Your task to perform on an android device: turn on translation in the chrome app Image 0: 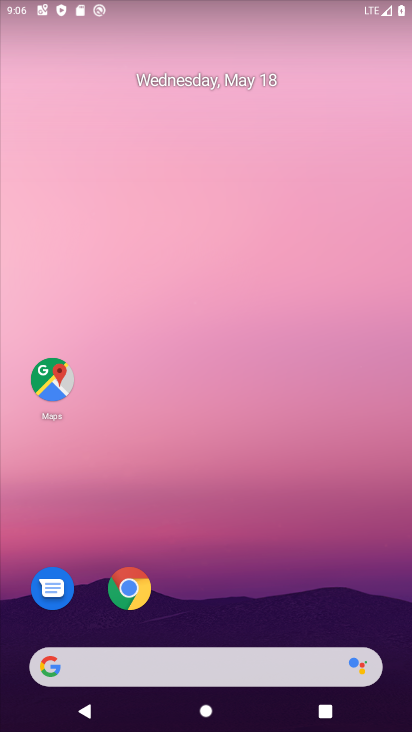
Step 0: click (137, 589)
Your task to perform on an android device: turn on translation in the chrome app Image 1: 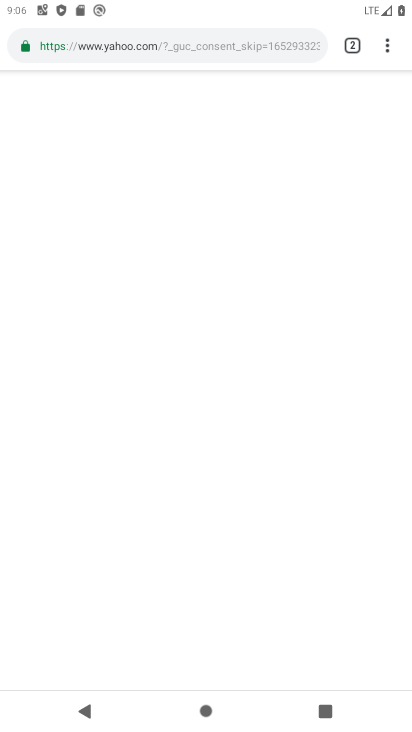
Step 1: click (386, 44)
Your task to perform on an android device: turn on translation in the chrome app Image 2: 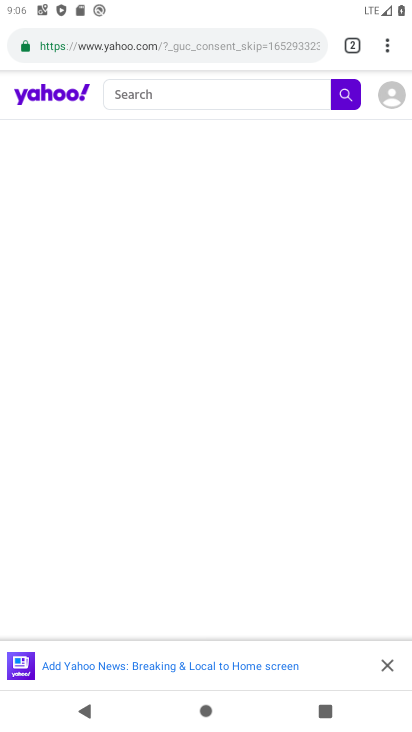
Step 2: drag from (382, 37) to (229, 513)
Your task to perform on an android device: turn on translation in the chrome app Image 3: 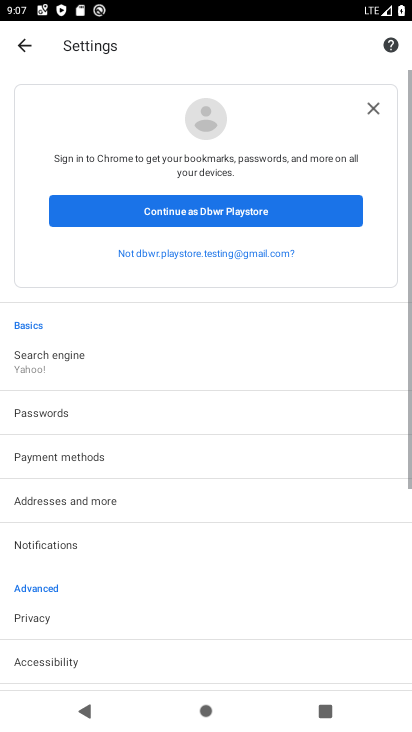
Step 3: drag from (200, 579) to (137, 76)
Your task to perform on an android device: turn on translation in the chrome app Image 4: 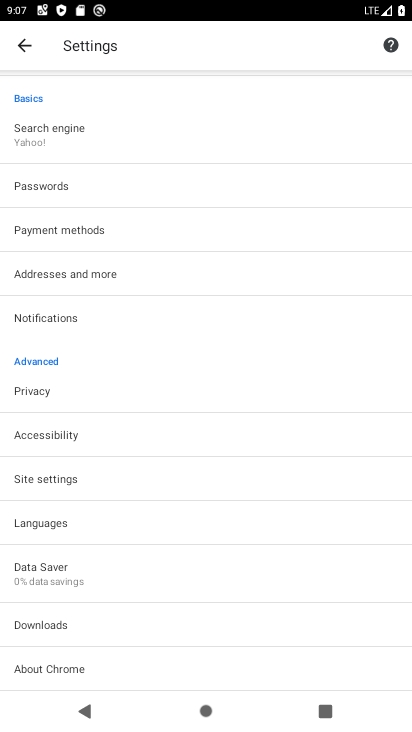
Step 4: click (43, 525)
Your task to perform on an android device: turn on translation in the chrome app Image 5: 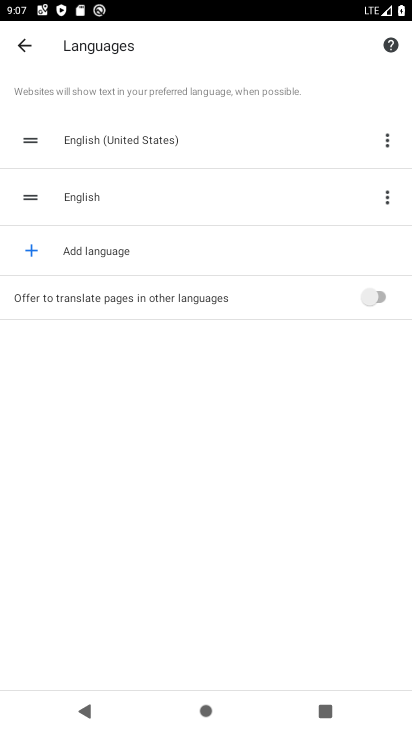
Step 5: click (372, 297)
Your task to perform on an android device: turn on translation in the chrome app Image 6: 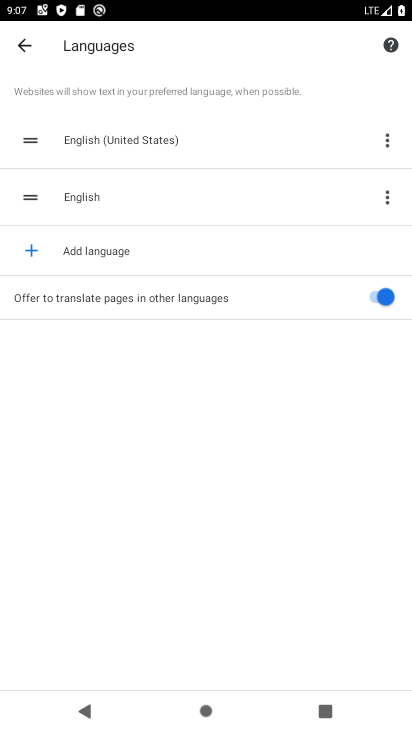
Step 6: task complete